Your task to perform on an android device: empty trash in the gmail app Image 0: 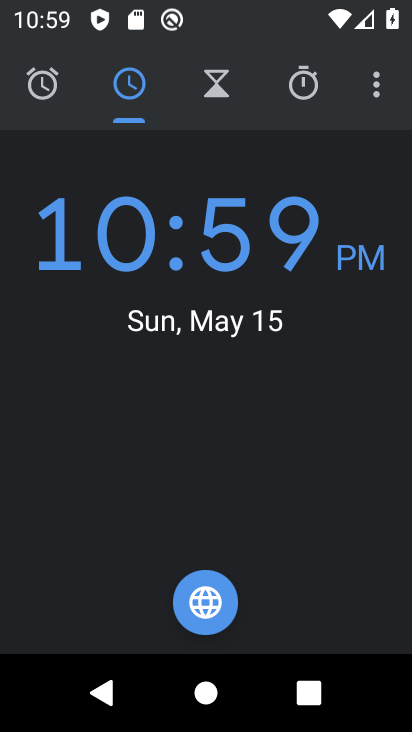
Step 0: press home button
Your task to perform on an android device: empty trash in the gmail app Image 1: 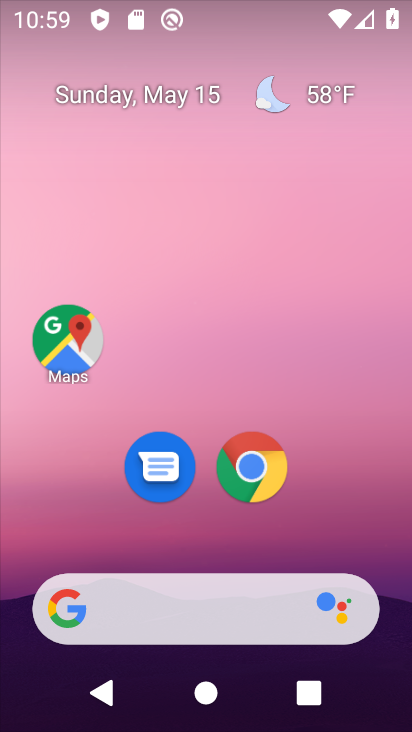
Step 1: drag from (201, 542) to (237, 234)
Your task to perform on an android device: empty trash in the gmail app Image 2: 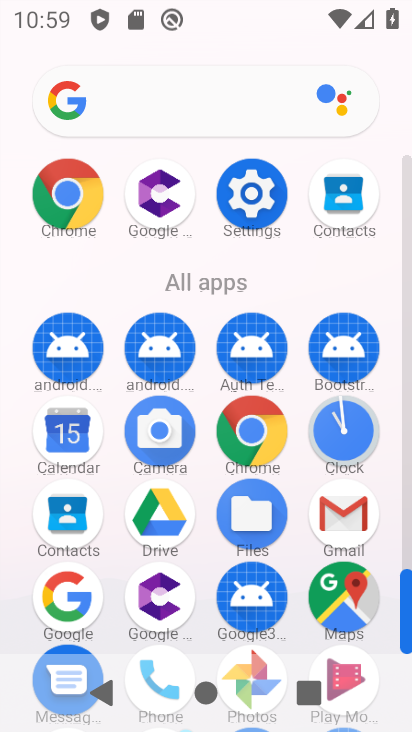
Step 2: click (334, 506)
Your task to perform on an android device: empty trash in the gmail app Image 3: 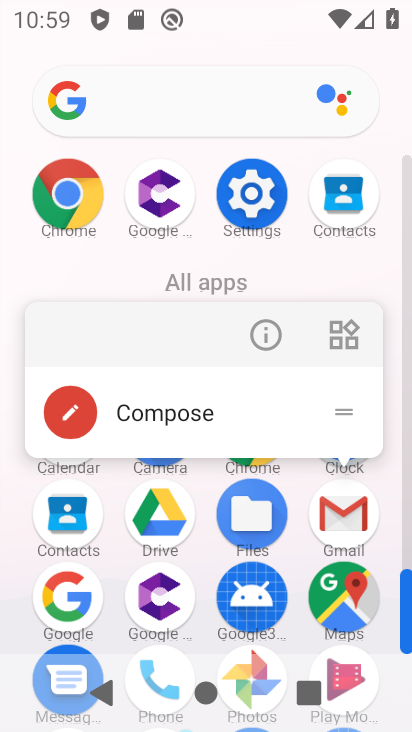
Step 3: click (339, 522)
Your task to perform on an android device: empty trash in the gmail app Image 4: 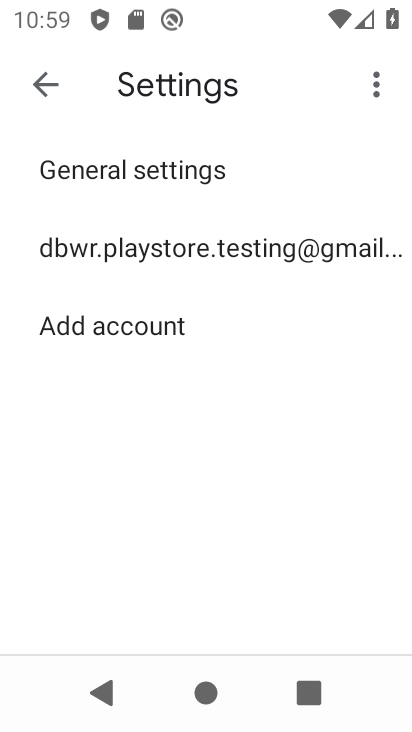
Step 4: click (47, 82)
Your task to perform on an android device: empty trash in the gmail app Image 5: 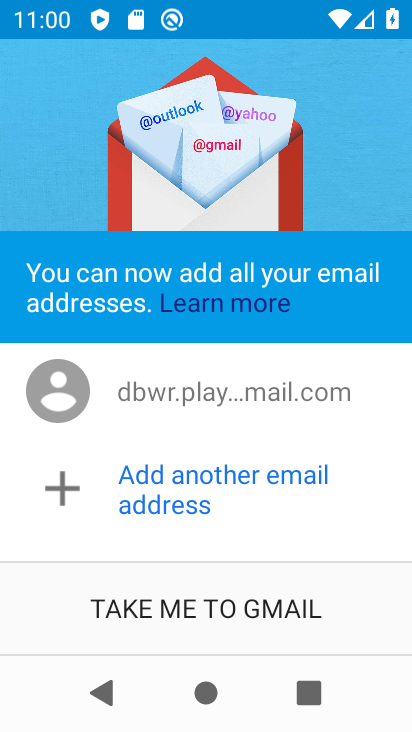
Step 5: click (200, 612)
Your task to perform on an android device: empty trash in the gmail app Image 6: 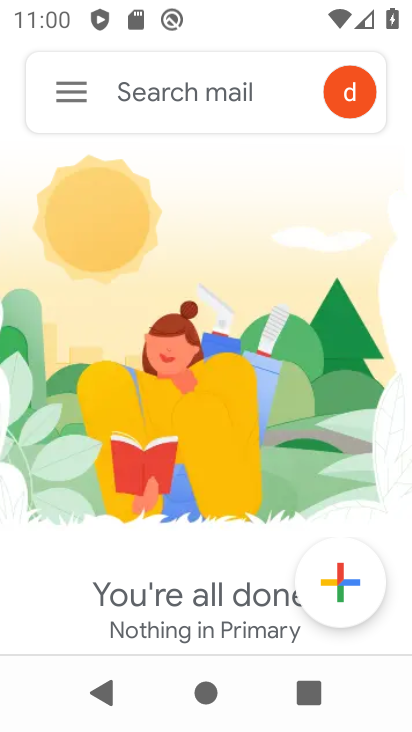
Step 6: click (61, 96)
Your task to perform on an android device: empty trash in the gmail app Image 7: 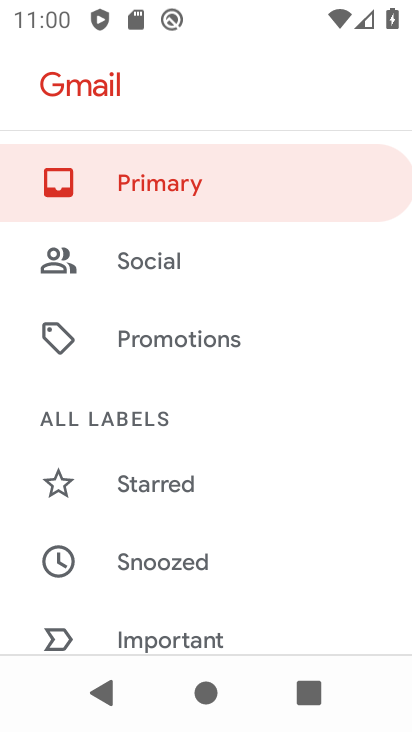
Step 7: drag from (149, 587) to (184, 32)
Your task to perform on an android device: empty trash in the gmail app Image 8: 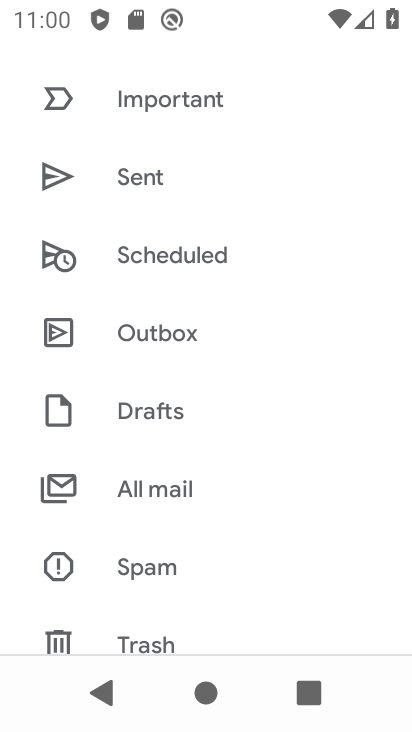
Step 8: click (159, 628)
Your task to perform on an android device: empty trash in the gmail app Image 9: 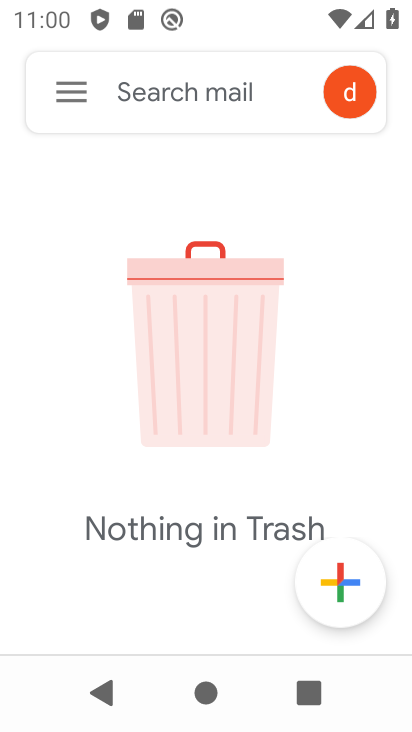
Step 9: task complete